Your task to perform on an android device: all mails in gmail Image 0: 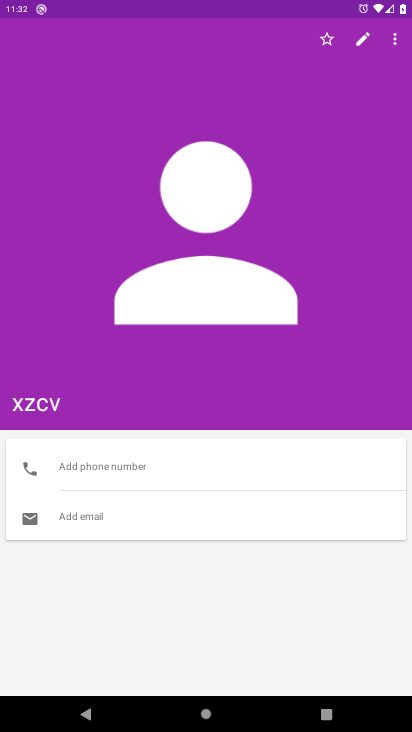
Step 0: press home button
Your task to perform on an android device: all mails in gmail Image 1: 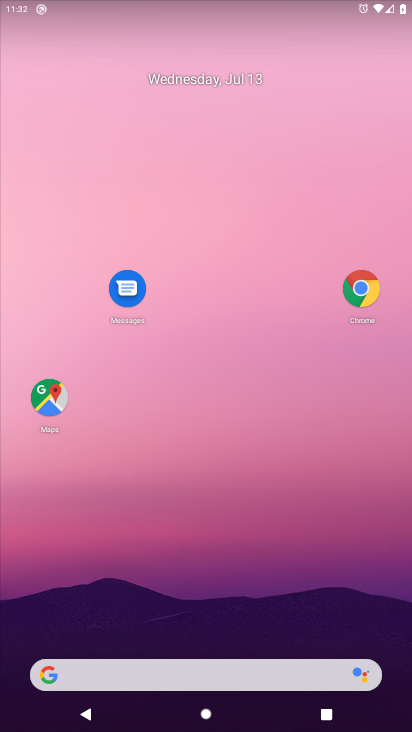
Step 1: drag from (31, 669) to (409, 112)
Your task to perform on an android device: all mails in gmail Image 2: 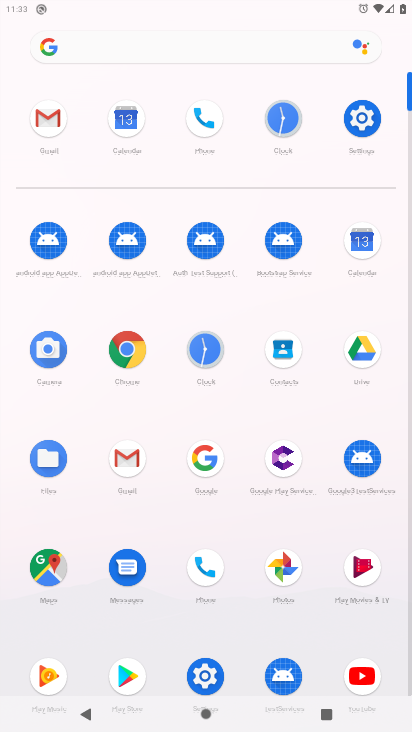
Step 2: click (131, 449)
Your task to perform on an android device: all mails in gmail Image 3: 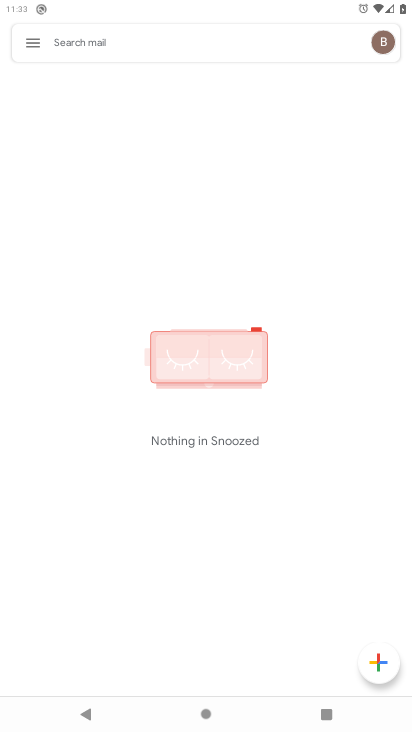
Step 3: click (29, 45)
Your task to perform on an android device: all mails in gmail Image 4: 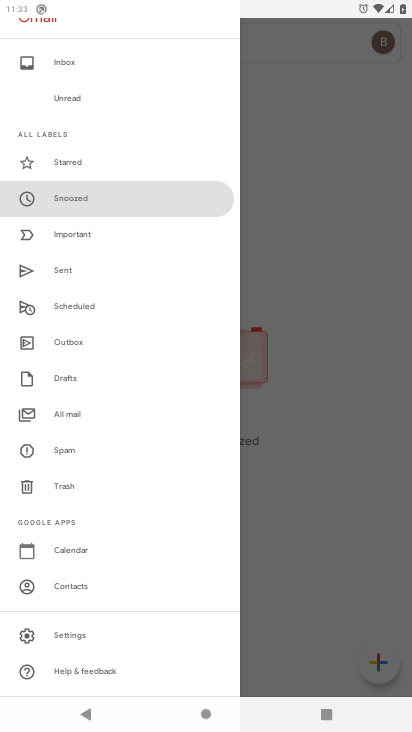
Step 4: click (68, 420)
Your task to perform on an android device: all mails in gmail Image 5: 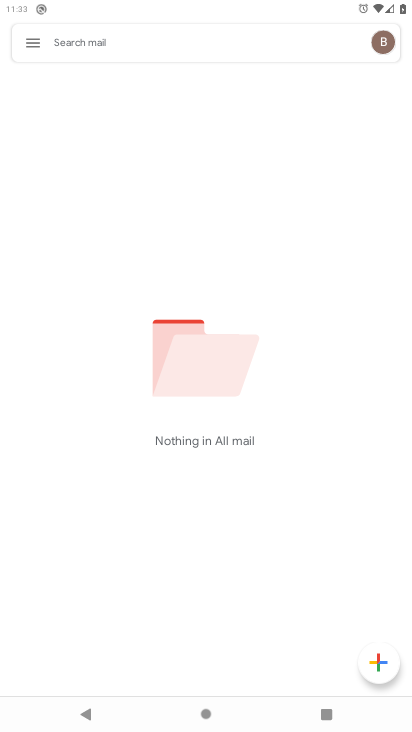
Step 5: task complete